Your task to perform on an android device: What is the capital of Japan? Image 0: 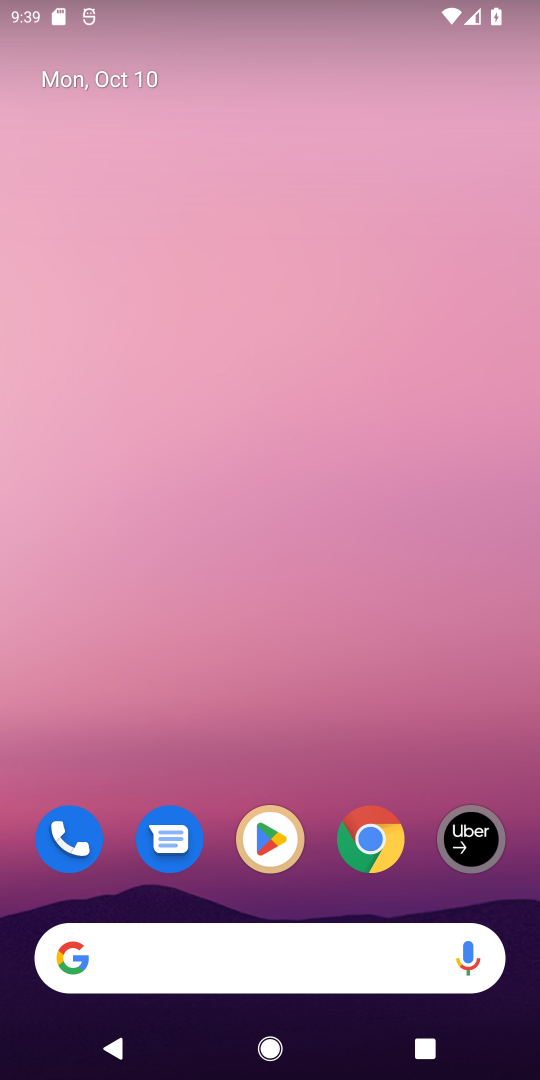
Step 0: drag from (222, 899) to (243, 2)
Your task to perform on an android device: What is the capital of Japan? Image 1: 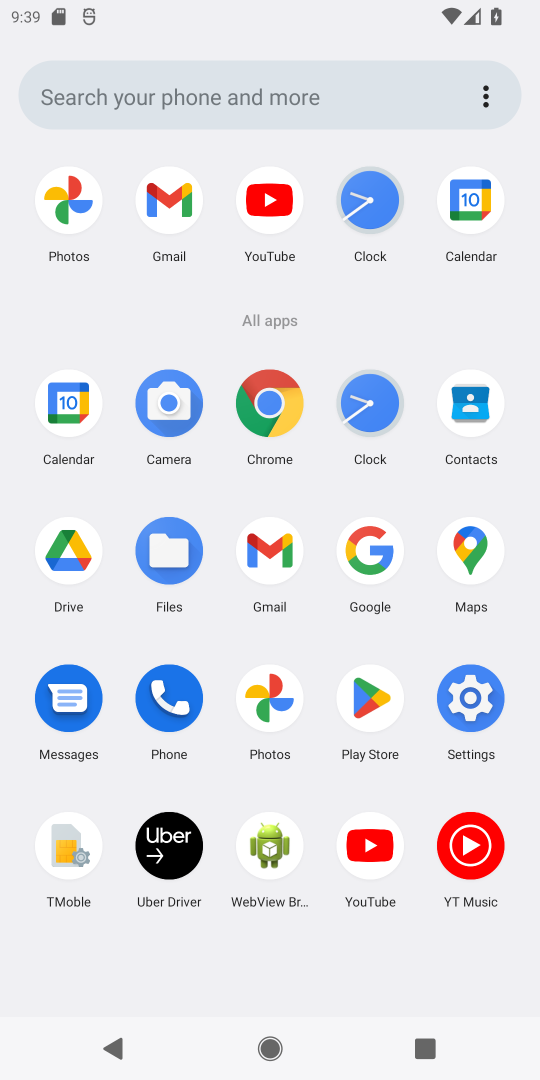
Step 1: click (268, 409)
Your task to perform on an android device: What is the capital of Japan? Image 2: 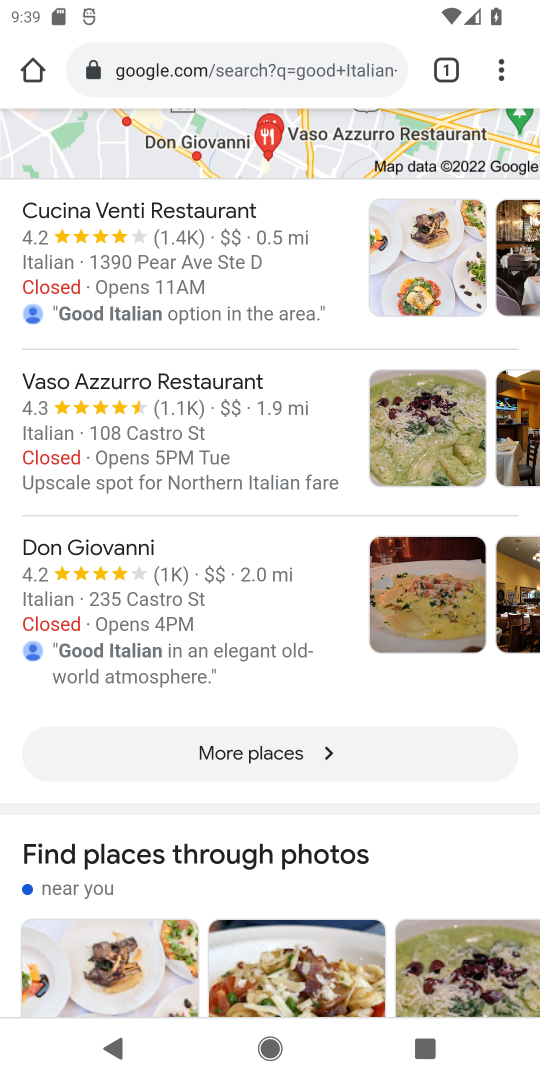
Step 2: click (257, 57)
Your task to perform on an android device: What is the capital of Japan? Image 3: 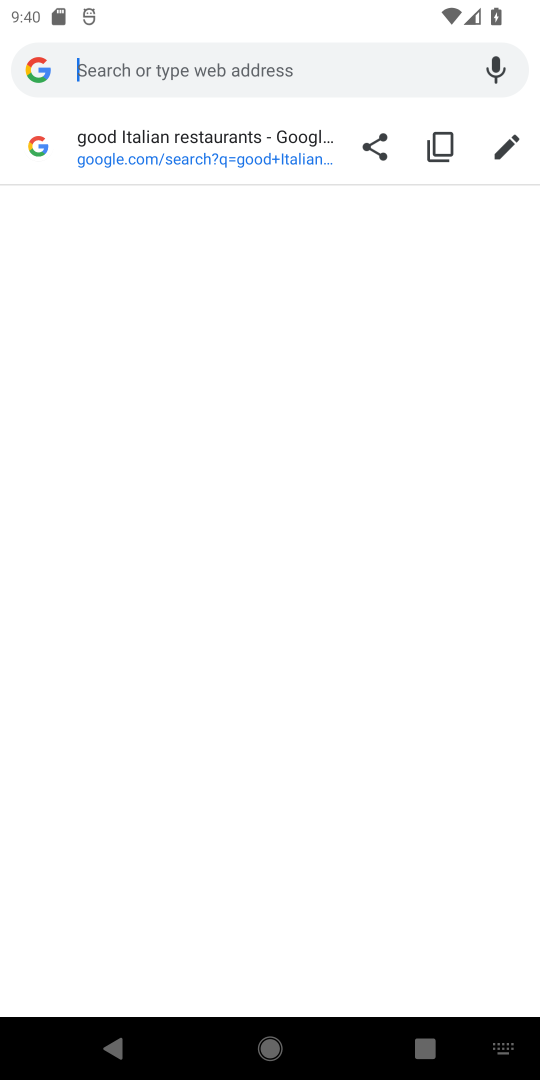
Step 3: type "What is the capital of Japan?"
Your task to perform on an android device: What is the capital of Japan? Image 4: 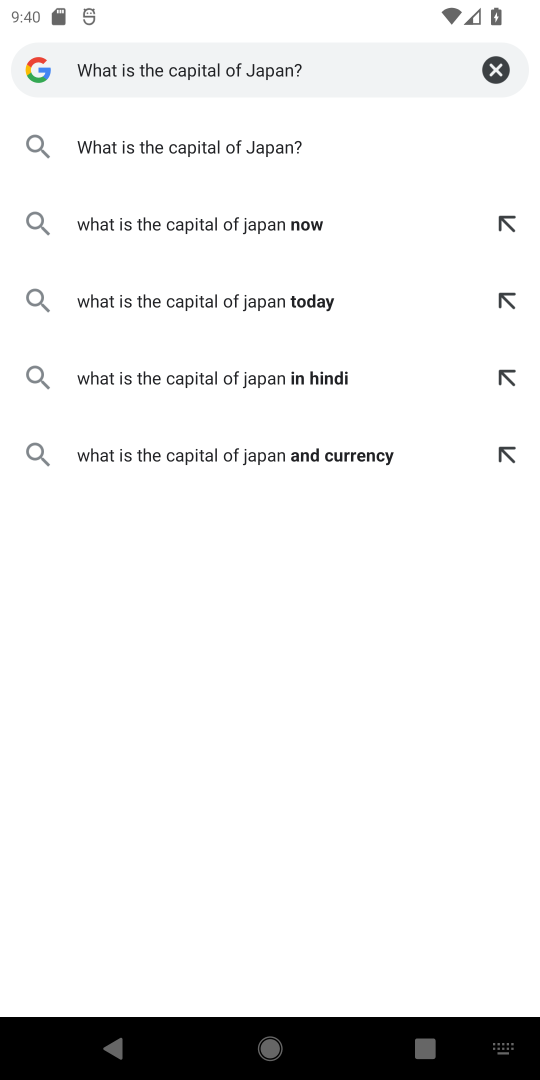
Step 4: press enter
Your task to perform on an android device: What is the capital of Japan? Image 5: 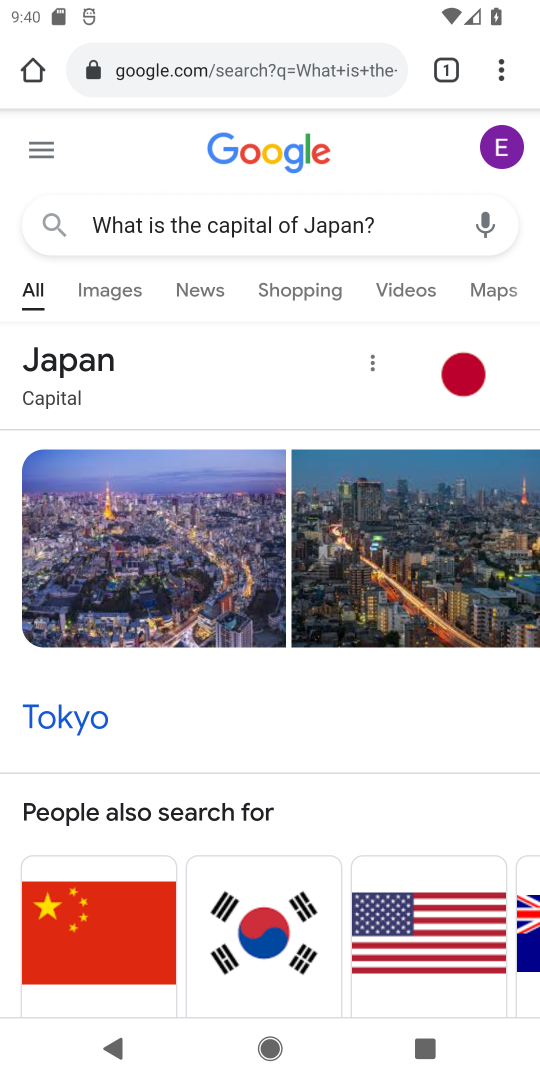
Step 5: task complete